Your task to perform on an android device: allow notifications from all sites in the chrome app Image 0: 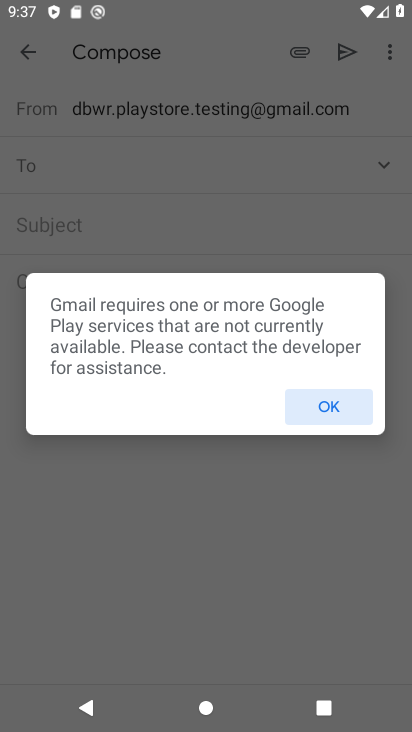
Step 0: drag from (216, 572) to (384, 370)
Your task to perform on an android device: allow notifications from all sites in the chrome app Image 1: 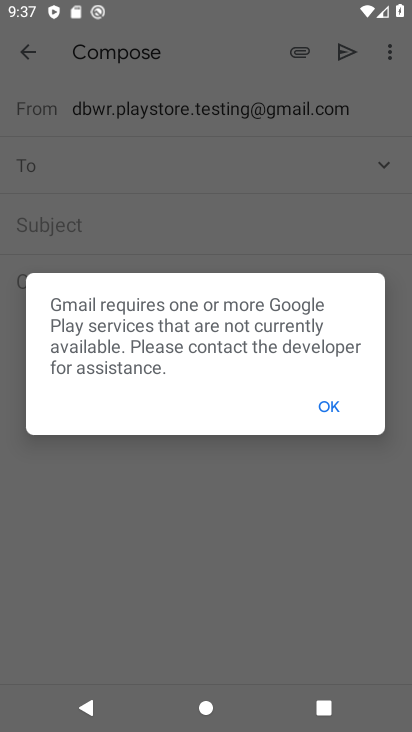
Step 1: press home button
Your task to perform on an android device: allow notifications from all sites in the chrome app Image 2: 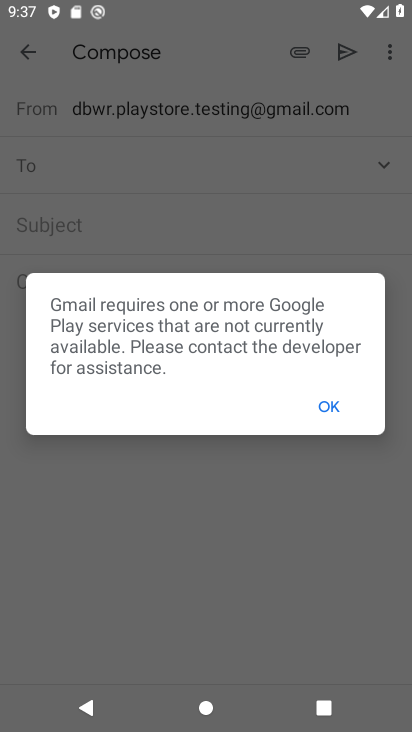
Step 2: drag from (384, 370) to (407, 288)
Your task to perform on an android device: allow notifications from all sites in the chrome app Image 3: 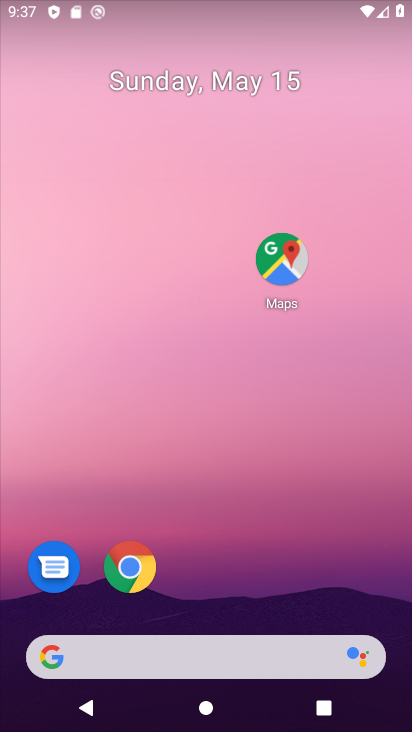
Step 3: click (127, 560)
Your task to perform on an android device: allow notifications from all sites in the chrome app Image 4: 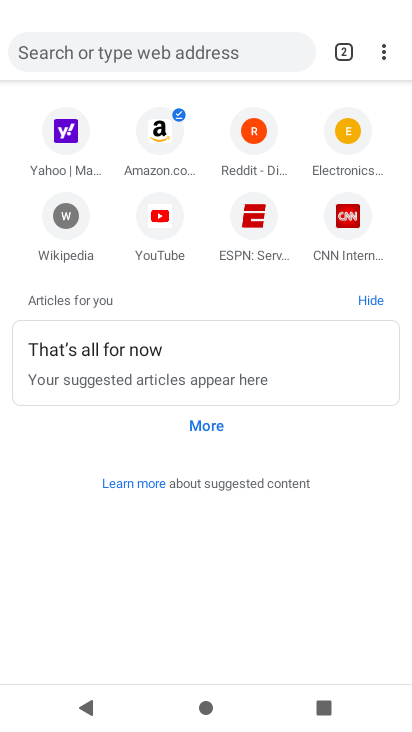
Step 4: click (374, 56)
Your task to perform on an android device: allow notifications from all sites in the chrome app Image 5: 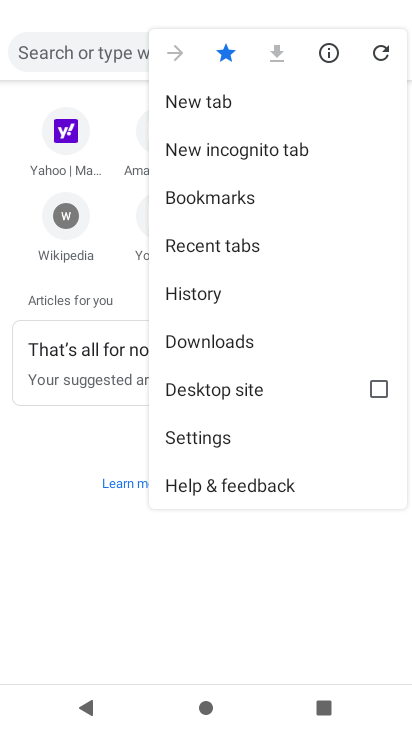
Step 5: click (239, 436)
Your task to perform on an android device: allow notifications from all sites in the chrome app Image 6: 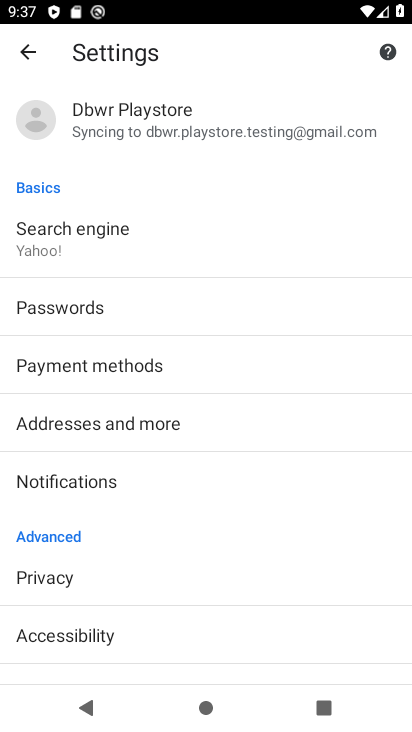
Step 6: drag from (211, 599) to (181, 229)
Your task to perform on an android device: allow notifications from all sites in the chrome app Image 7: 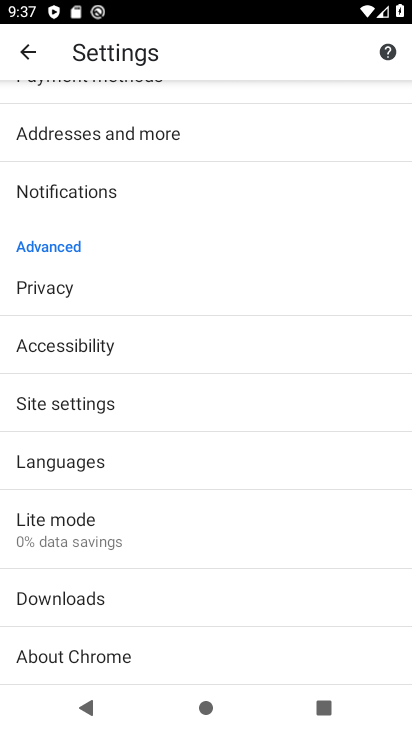
Step 7: click (67, 408)
Your task to perform on an android device: allow notifications from all sites in the chrome app Image 8: 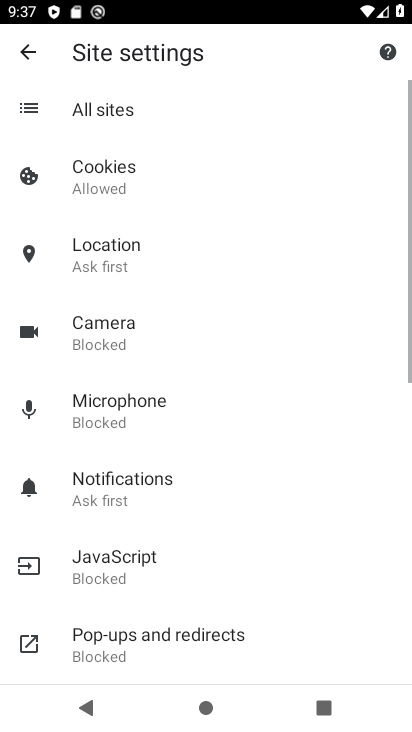
Step 8: click (148, 478)
Your task to perform on an android device: allow notifications from all sites in the chrome app Image 9: 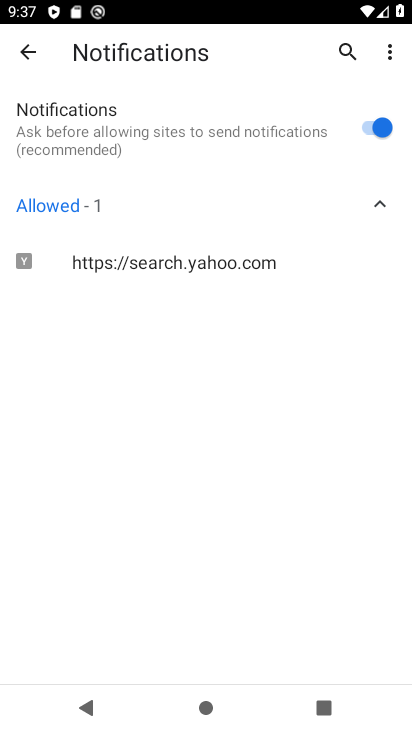
Step 9: task complete